Your task to perform on an android device: Open battery settings Image 0: 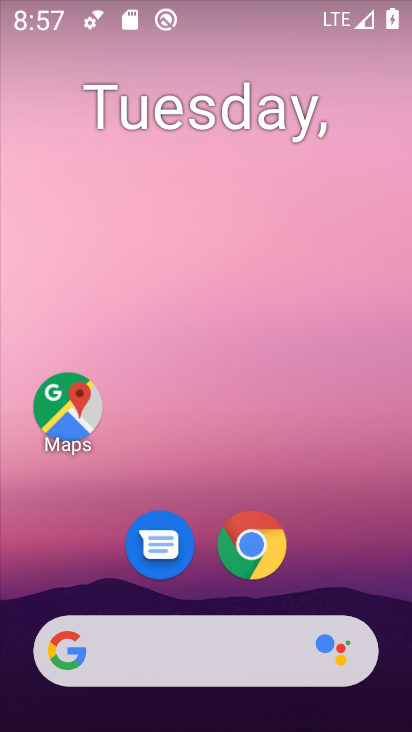
Step 0: drag from (358, 581) to (351, 20)
Your task to perform on an android device: Open battery settings Image 1: 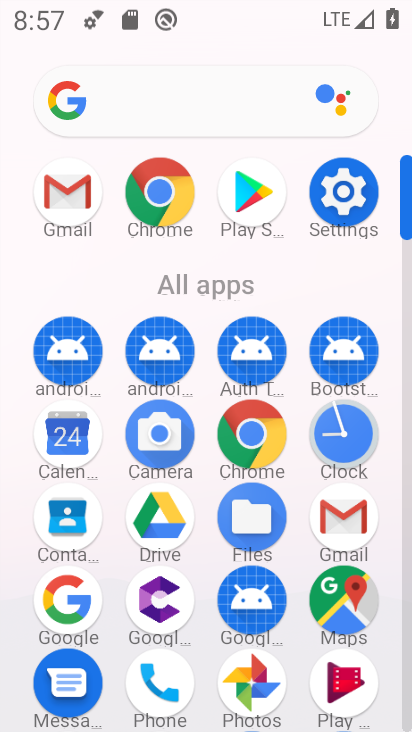
Step 1: click (321, 184)
Your task to perform on an android device: Open battery settings Image 2: 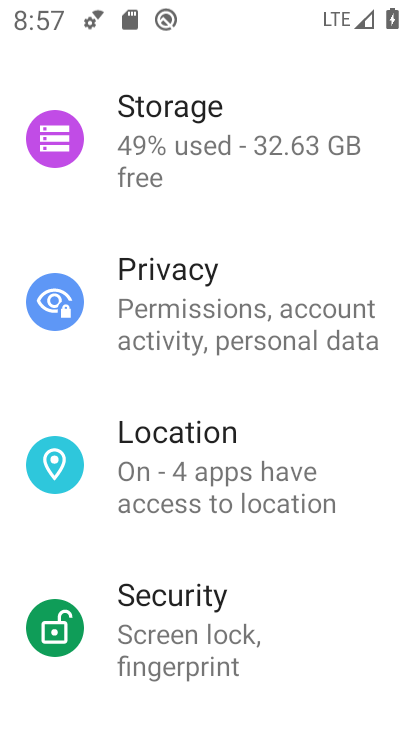
Step 2: drag from (144, 209) to (176, 659)
Your task to perform on an android device: Open battery settings Image 3: 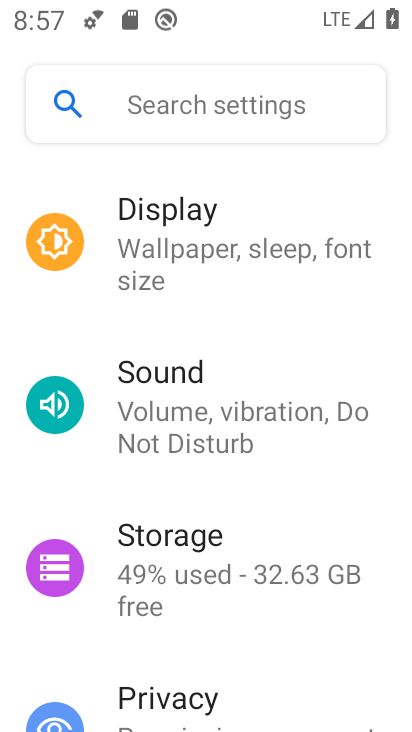
Step 3: drag from (189, 354) to (194, 616)
Your task to perform on an android device: Open battery settings Image 4: 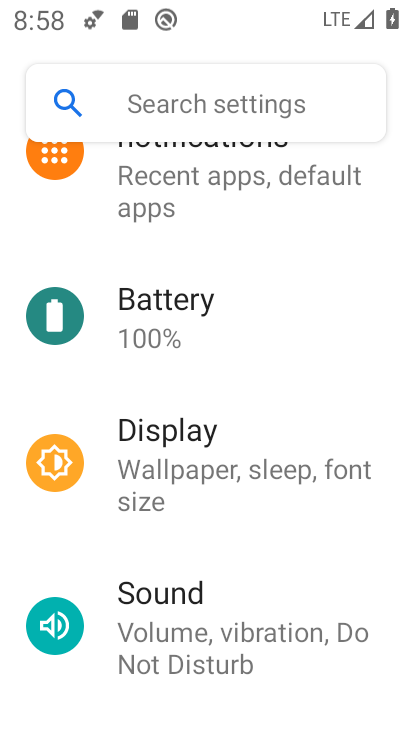
Step 4: drag from (251, 376) to (270, 629)
Your task to perform on an android device: Open battery settings Image 5: 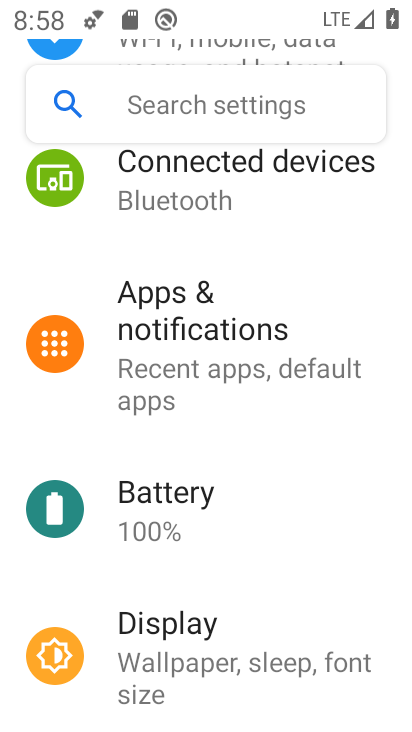
Step 5: drag from (240, 269) to (246, 466)
Your task to perform on an android device: Open battery settings Image 6: 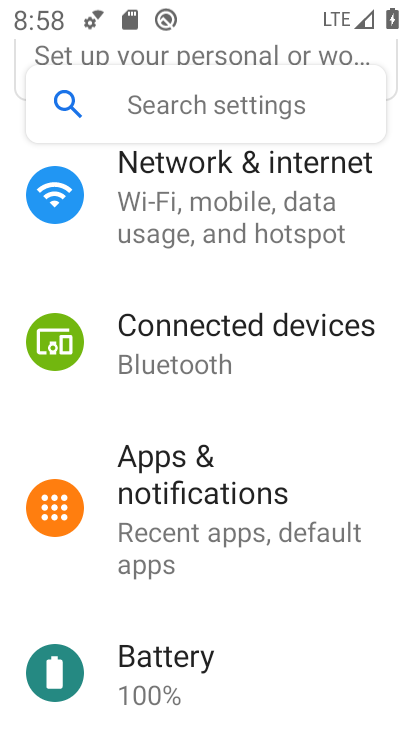
Step 6: click (111, 664)
Your task to perform on an android device: Open battery settings Image 7: 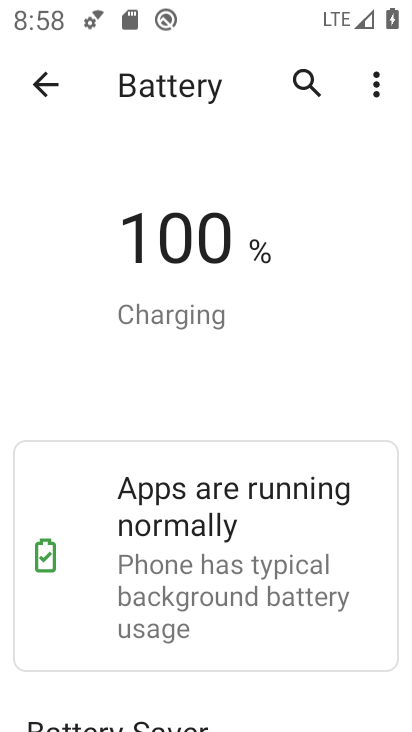
Step 7: task complete